Your task to perform on an android device: read, delete, or share a saved page in the chrome app Image 0: 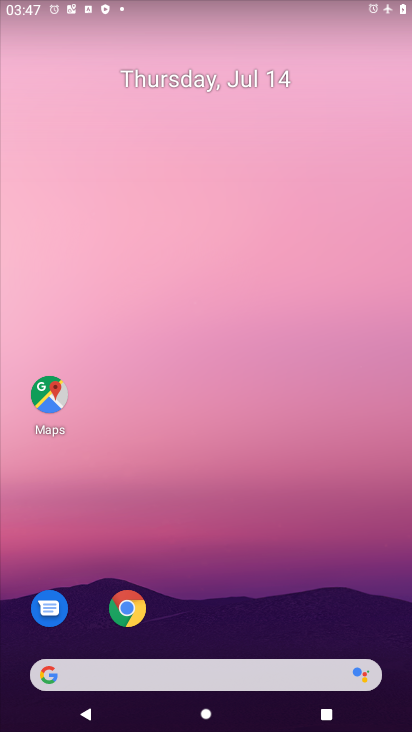
Step 0: click (128, 609)
Your task to perform on an android device: read, delete, or share a saved page in the chrome app Image 1: 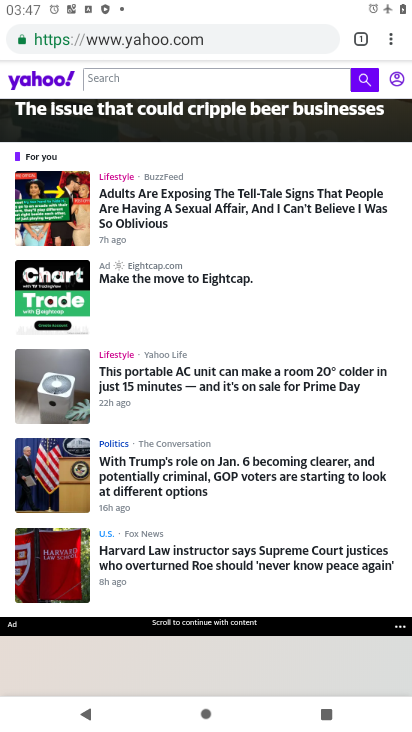
Step 1: click (389, 44)
Your task to perform on an android device: read, delete, or share a saved page in the chrome app Image 2: 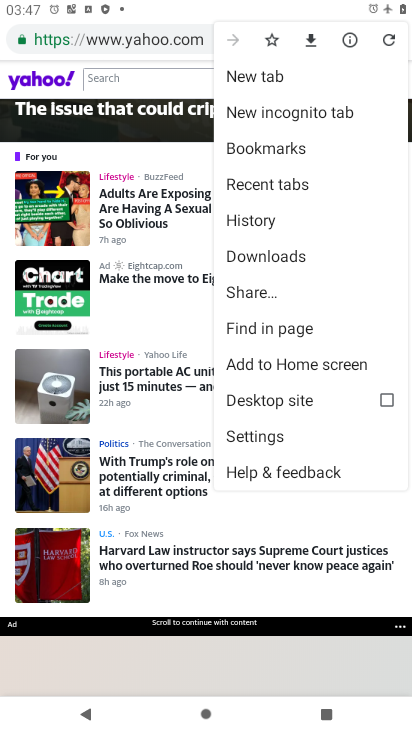
Step 2: click (271, 253)
Your task to perform on an android device: read, delete, or share a saved page in the chrome app Image 3: 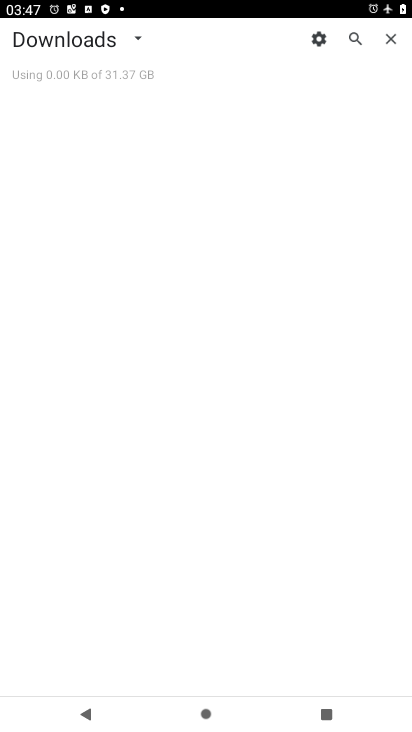
Step 3: click (131, 33)
Your task to perform on an android device: read, delete, or share a saved page in the chrome app Image 4: 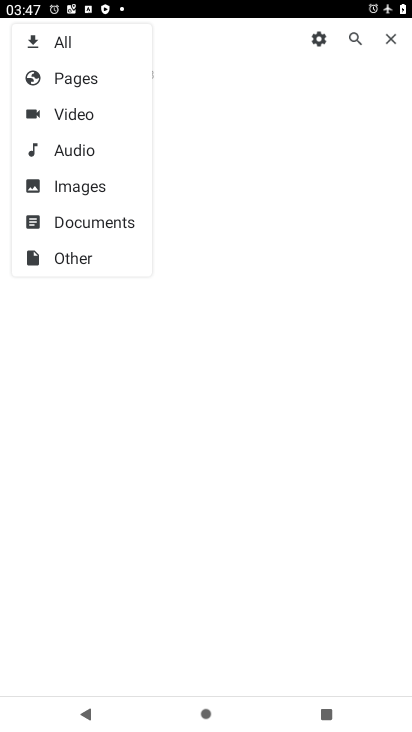
Step 4: click (69, 74)
Your task to perform on an android device: read, delete, or share a saved page in the chrome app Image 5: 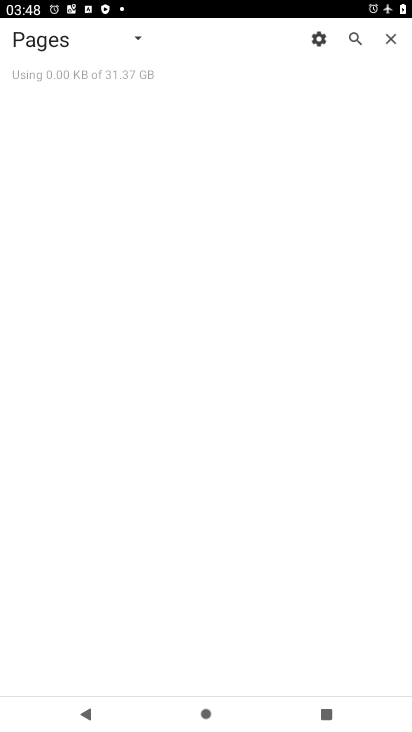
Step 5: task complete